Your task to perform on an android device: empty trash in google photos Image 0: 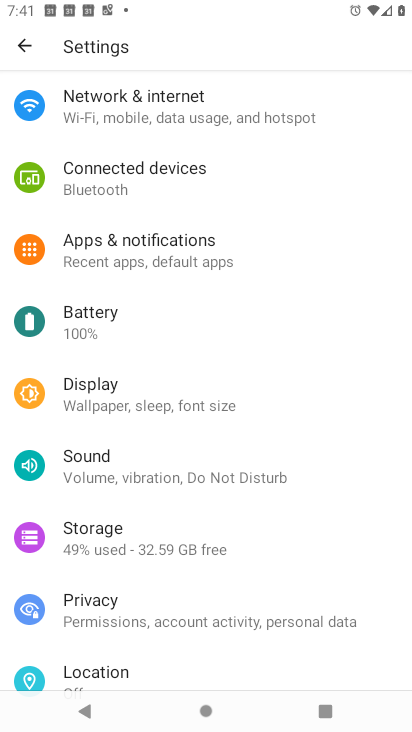
Step 0: press home button
Your task to perform on an android device: empty trash in google photos Image 1: 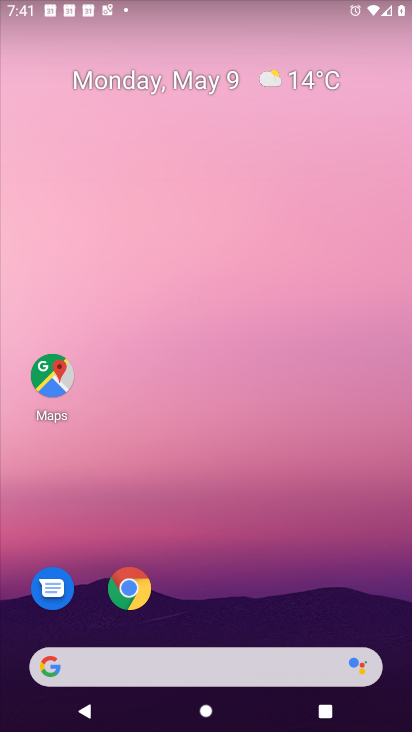
Step 1: drag from (280, 603) to (314, 50)
Your task to perform on an android device: empty trash in google photos Image 2: 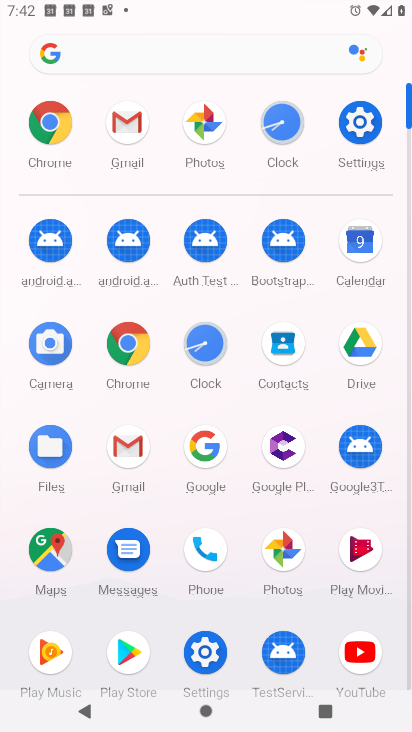
Step 2: click (299, 538)
Your task to perform on an android device: empty trash in google photos Image 3: 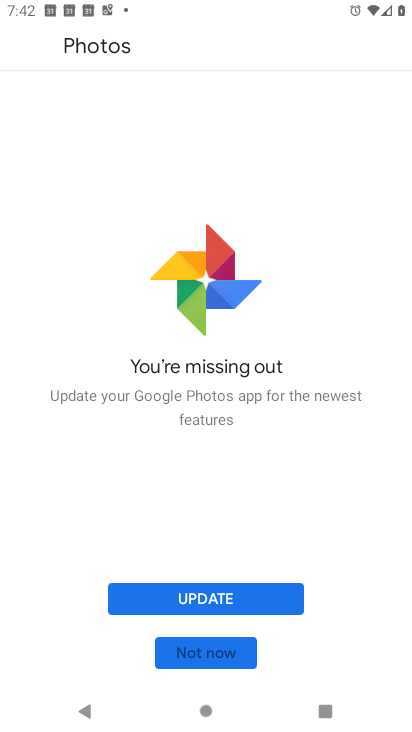
Step 3: click (172, 602)
Your task to perform on an android device: empty trash in google photos Image 4: 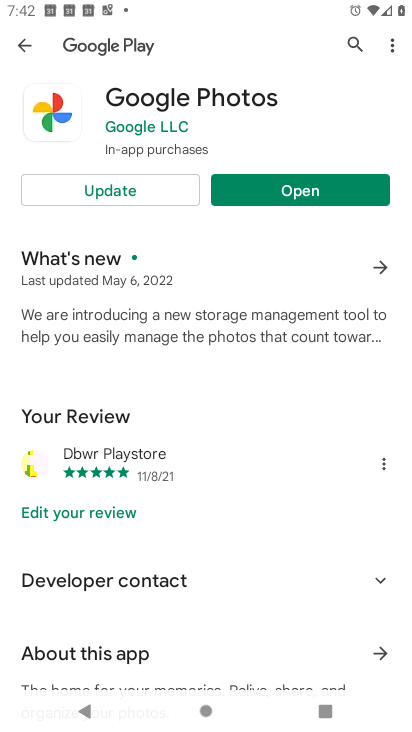
Step 4: click (143, 183)
Your task to perform on an android device: empty trash in google photos Image 5: 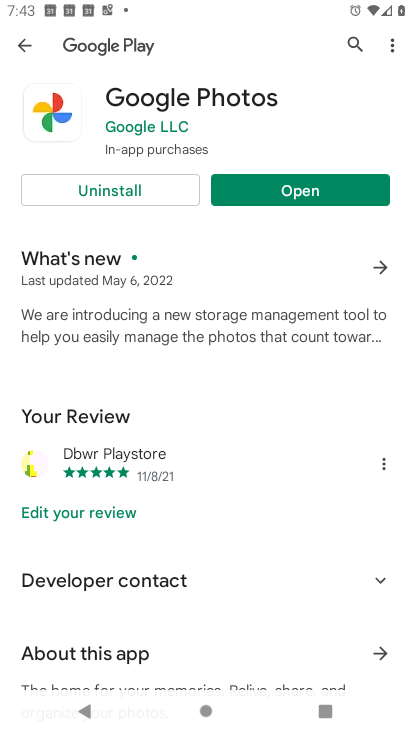
Step 5: click (278, 184)
Your task to perform on an android device: empty trash in google photos Image 6: 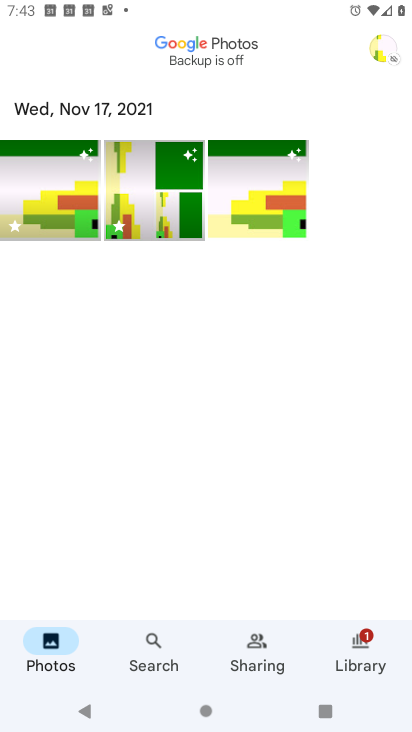
Step 6: click (381, 44)
Your task to perform on an android device: empty trash in google photos Image 7: 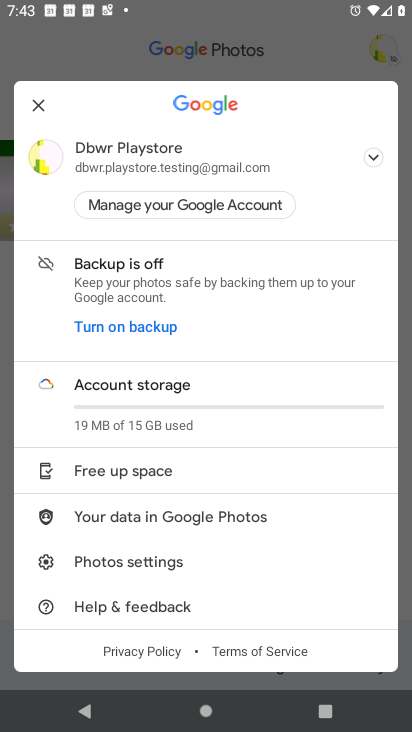
Step 7: press back button
Your task to perform on an android device: empty trash in google photos Image 8: 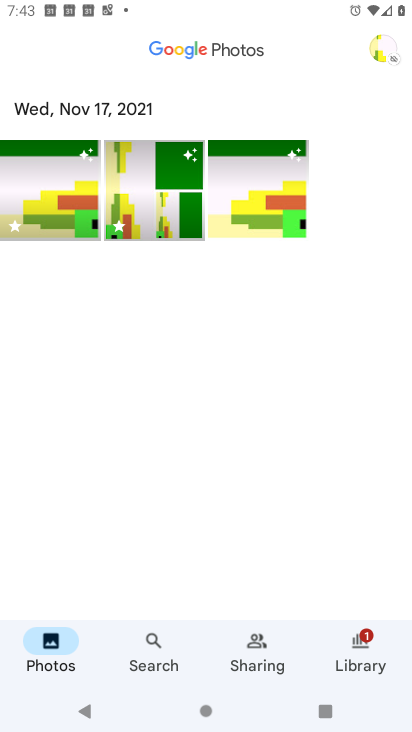
Step 8: click (338, 652)
Your task to perform on an android device: empty trash in google photos Image 9: 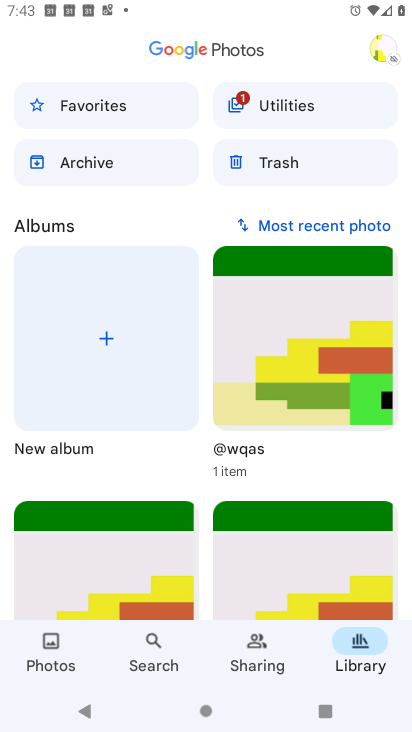
Step 9: click (268, 169)
Your task to perform on an android device: empty trash in google photos Image 10: 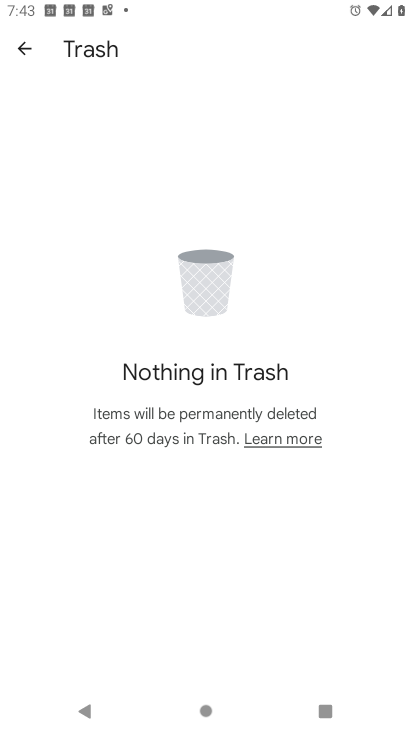
Step 10: task complete